Your task to perform on an android device: Clear the shopping cart on target. Add logitech g pro to the cart on target Image 0: 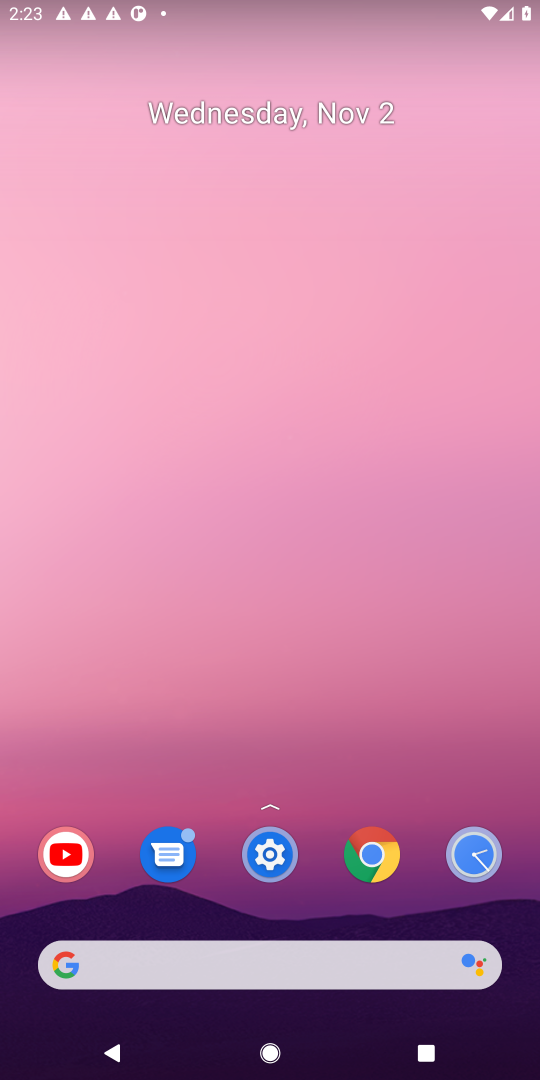
Step 0: click (246, 964)
Your task to perform on an android device: Clear the shopping cart on target. Add logitech g pro to the cart on target Image 1: 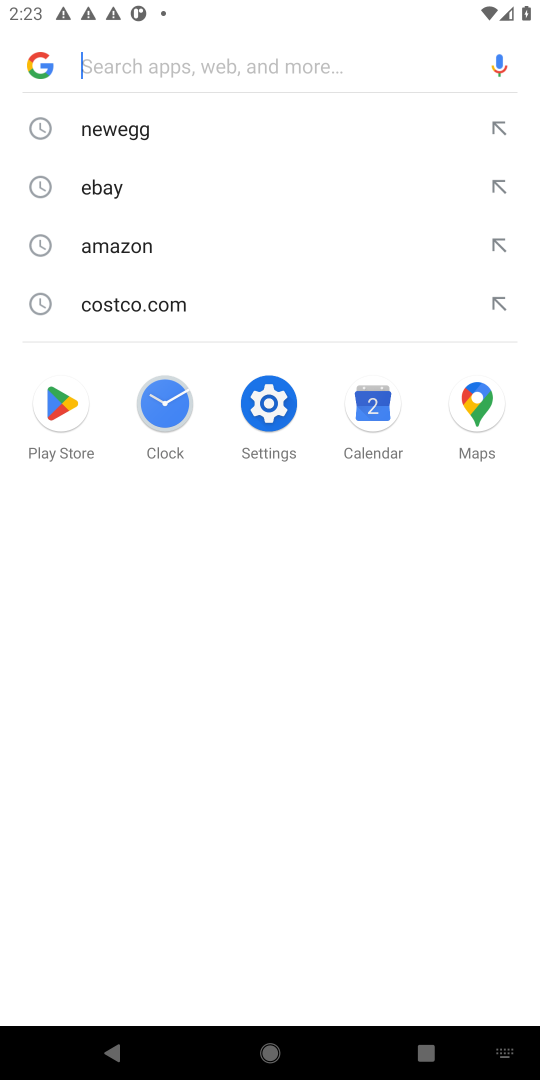
Step 1: type "target"
Your task to perform on an android device: Clear the shopping cart on target. Add logitech g pro to the cart on target Image 2: 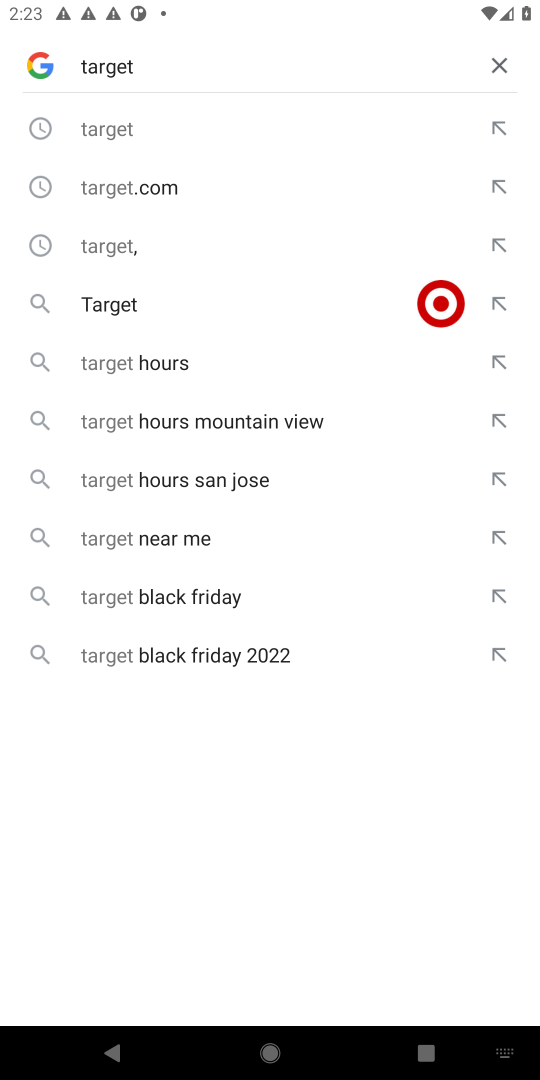
Step 2: type ""
Your task to perform on an android device: Clear the shopping cart on target. Add logitech g pro to the cart on target Image 3: 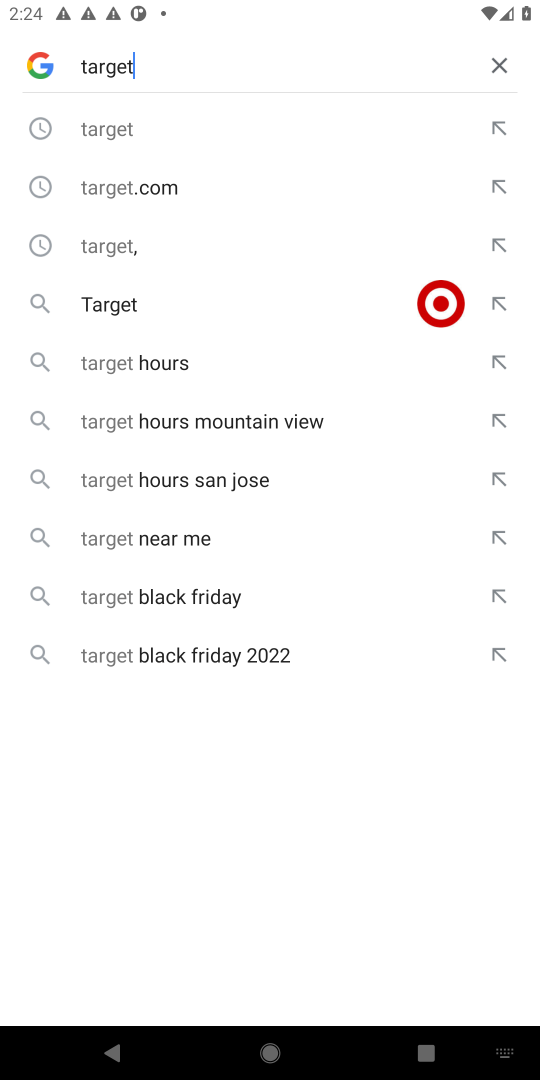
Step 3: type ""
Your task to perform on an android device: Clear the shopping cart on target. Add logitech g pro to the cart on target Image 4: 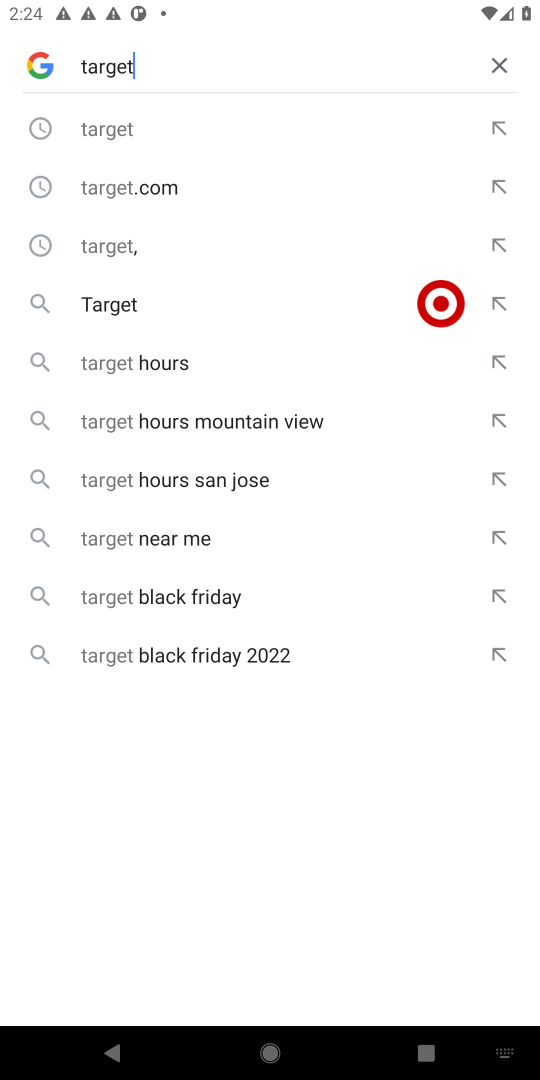
Step 4: press enter
Your task to perform on an android device: Clear the shopping cart on target. Add logitech g pro to the cart on target Image 5: 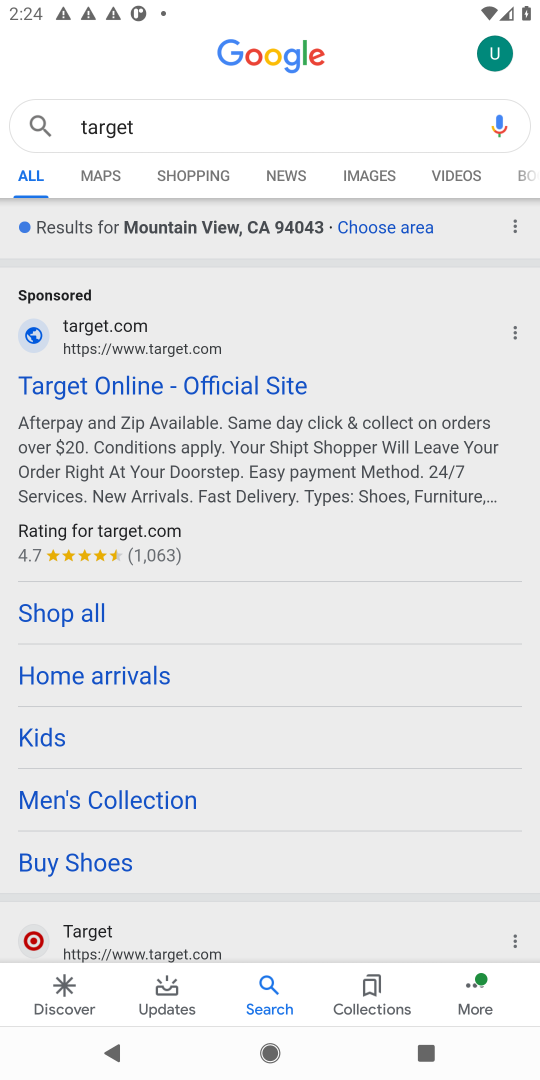
Step 5: click (146, 394)
Your task to perform on an android device: Clear the shopping cart on target. Add logitech g pro to the cart on target Image 6: 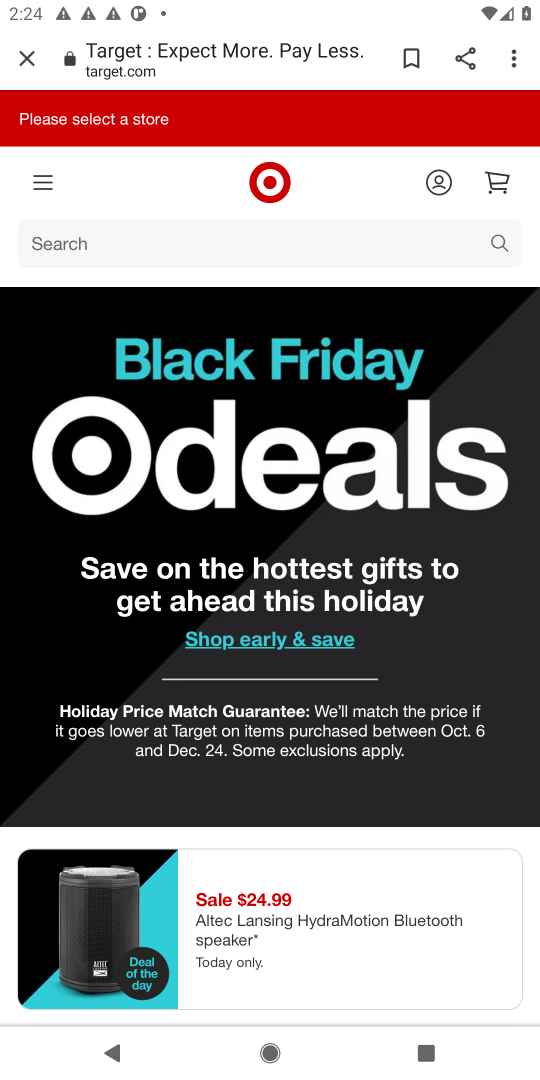
Step 6: click (155, 241)
Your task to perform on an android device: Clear the shopping cart on target. Add logitech g pro to the cart on target Image 7: 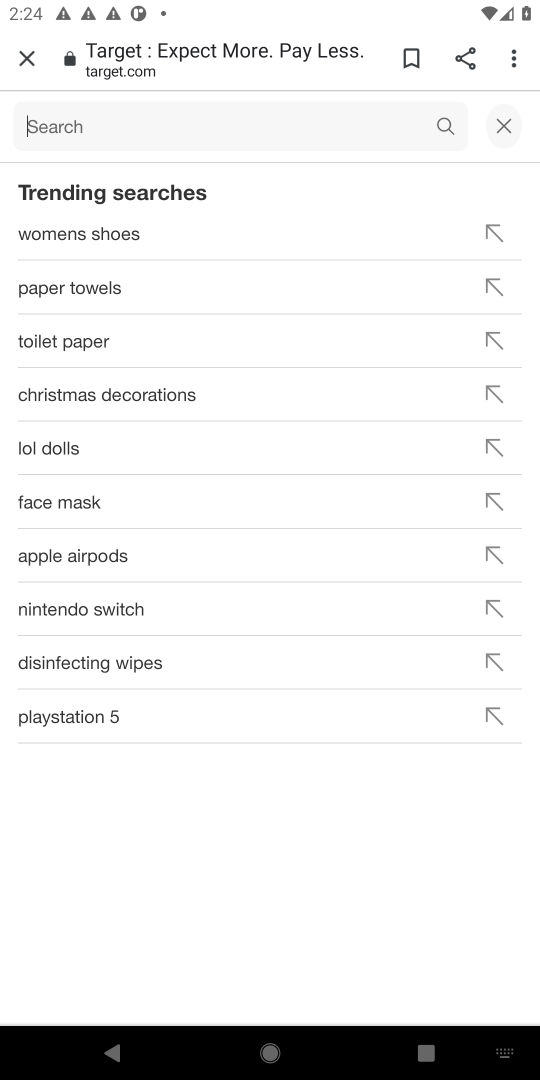
Step 7: type "logitech g pro"
Your task to perform on an android device: Clear the shopping cart on target. Add logitech g pro to the cart on target Image 8: 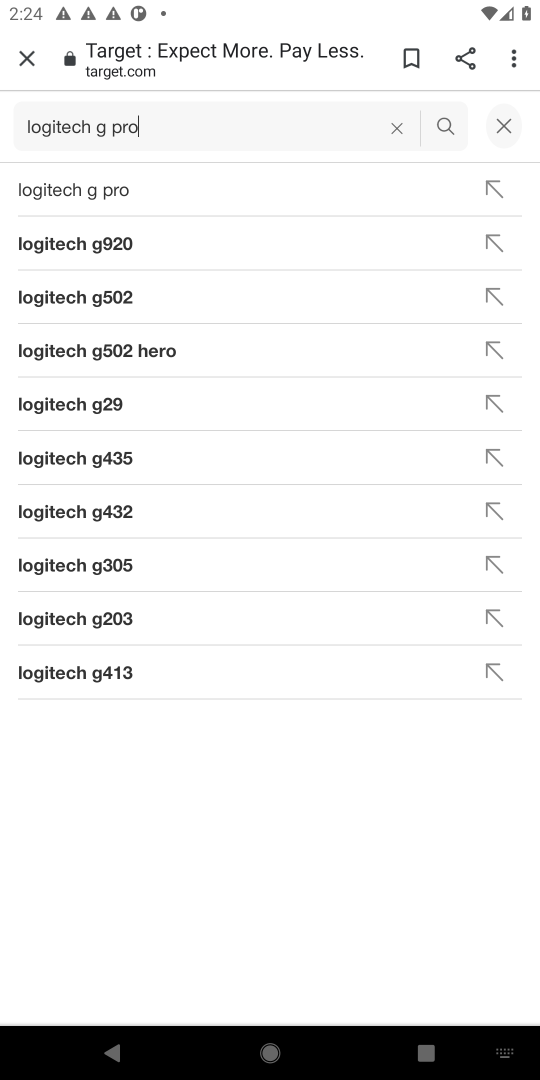
Step 8: type ""
Your task to perform on an android device: Clear the shopping cart on target. Add logitech g pro to the cart on target Image 9: 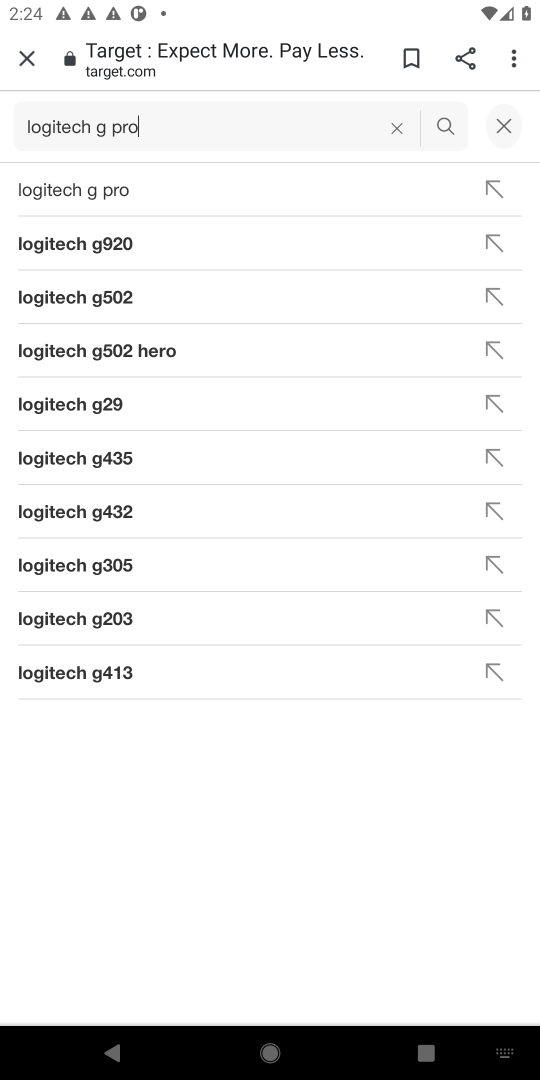
Step 9: press enter
Your task to perform on an android device: Clear the shopping cart on target. Add logitech g pro to the cart on target Image 10: 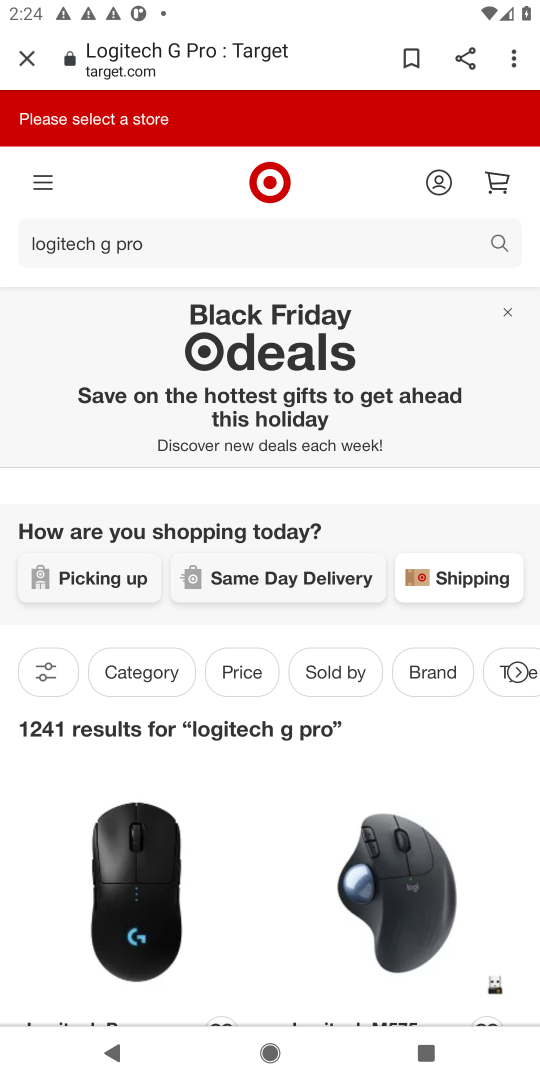
Step 10: drag from (395, 761) to (344, 337)
Your task to perform on an android device: Clear the shopping cart on target. Add logitech g pro to the cart on target Image 11: 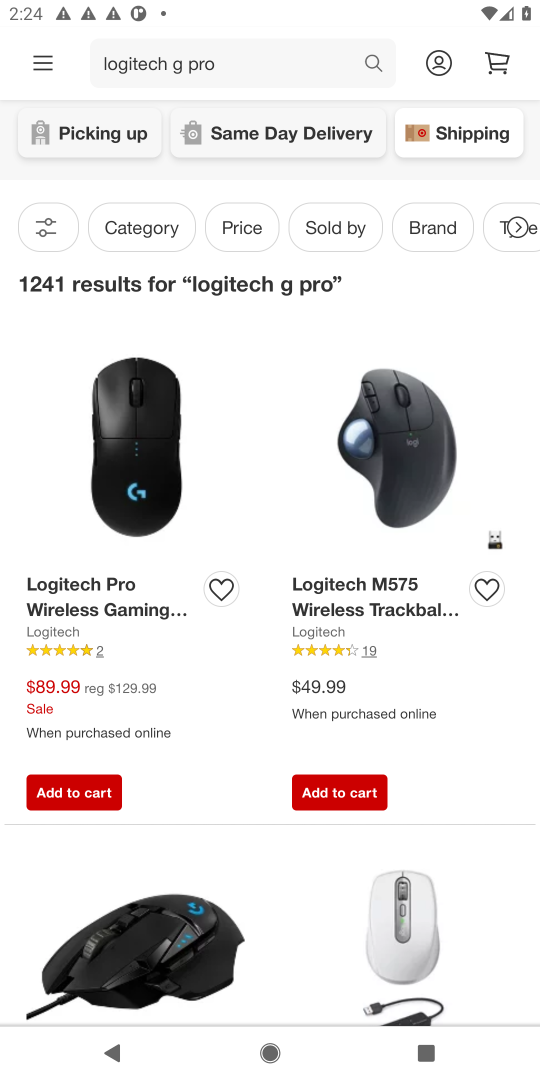
Step 11: click (85, 791)
Your task to perform on an android device: Clear the shopping cart on target. Add logitech g pro to the cart on target Image 12: 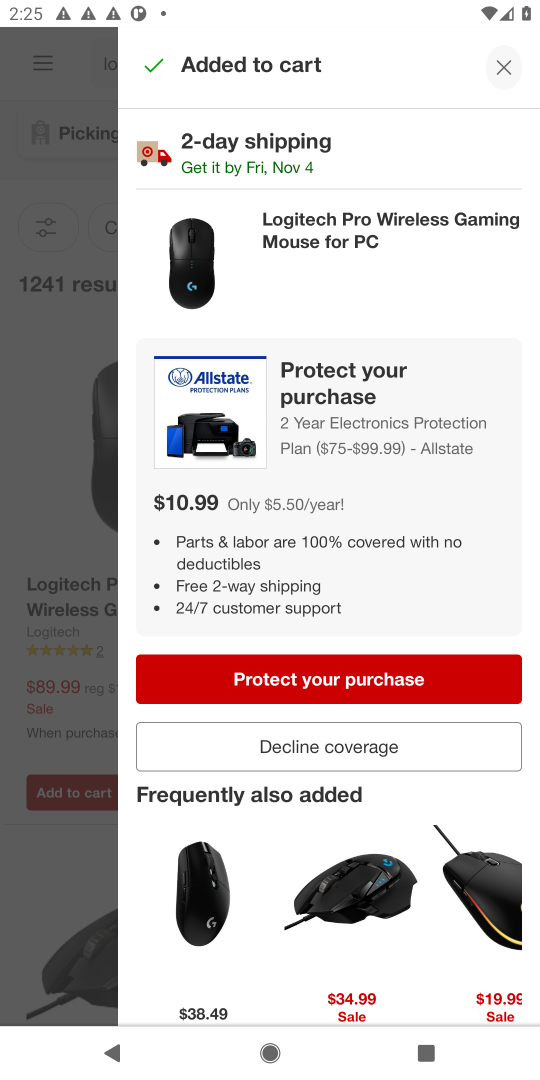
Step 12: click (353, 682)
Your task to perform on an android device: Clear the shopping cart on target. Add logitech g pro to the cart on target Image 13: 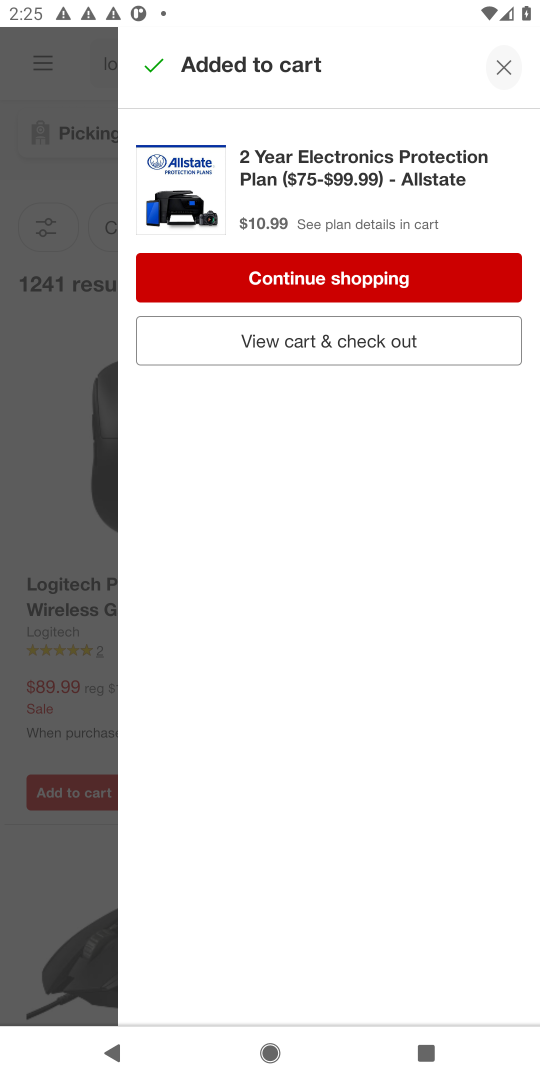
Step 13: task complete